Your task to perform on an android device: Go to Yahoo.com Image 0: 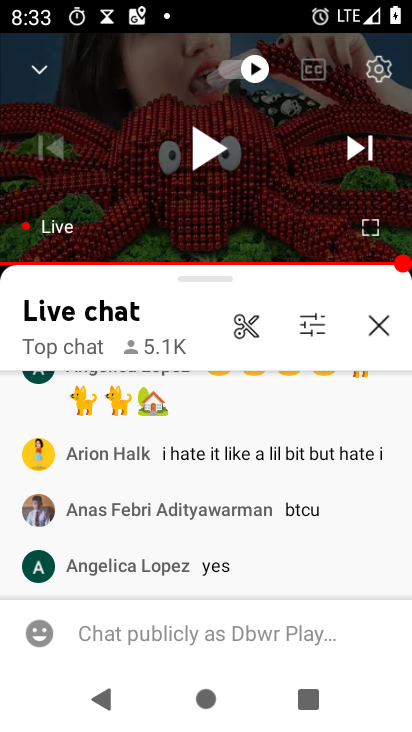
Step 0: press home button
Your task to perform on an android device: Go to Yahoo.com Image 1: 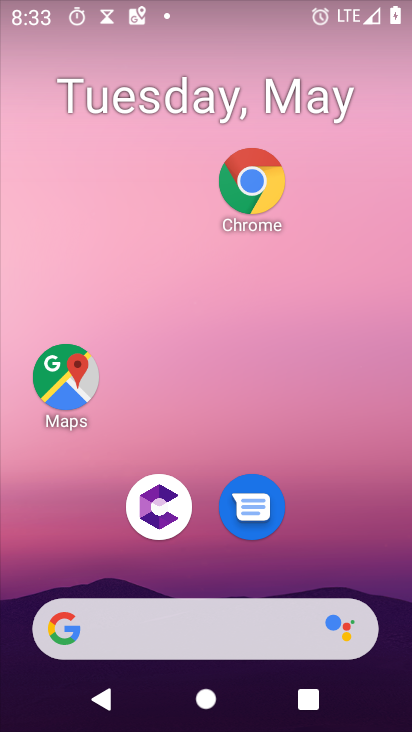
Step 1: click (262, 188)
Your task to perform on an android device: Go to Yahoo.com Image 2: 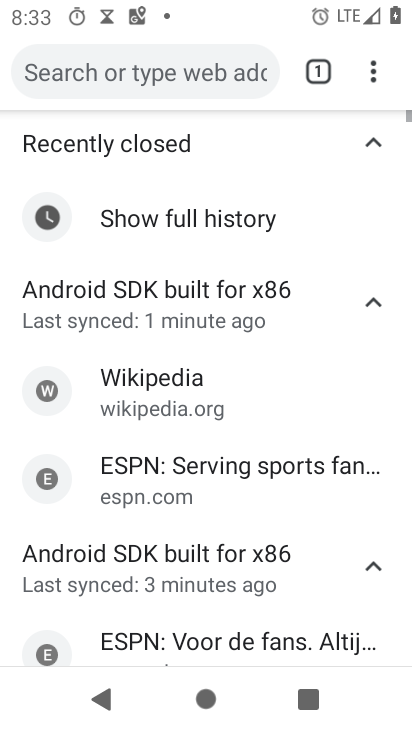
Step 2: click (235, 84)
Your task to perform on an android device: Go to Yahoo.com Image 3: 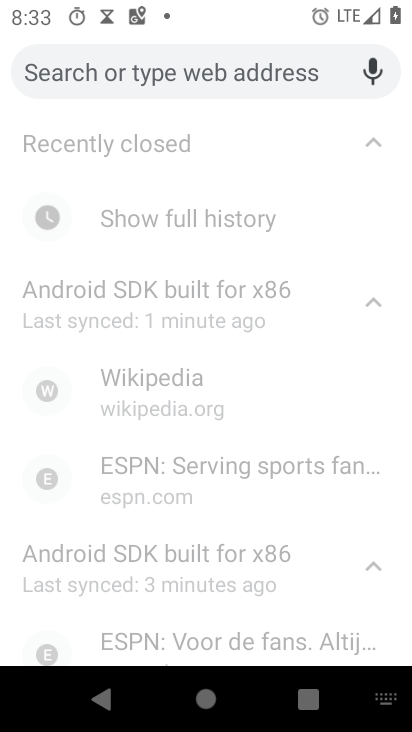
Step 3: type "yahoo.com"
Your task to perform on an android device: Go to Yahoo.com Image 4: 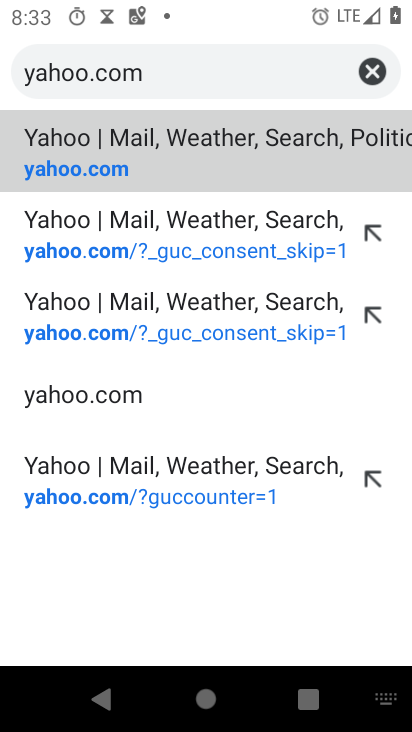
Step 4: click (374, 162)
Your task to perform on an android device: Go to Yahoo.com Image 5: 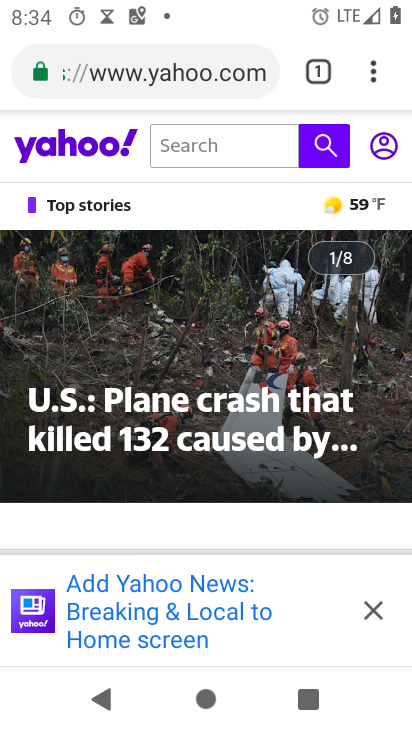
Step 5: task complete